Your task to perform on an android device: Go to settings Image 0: 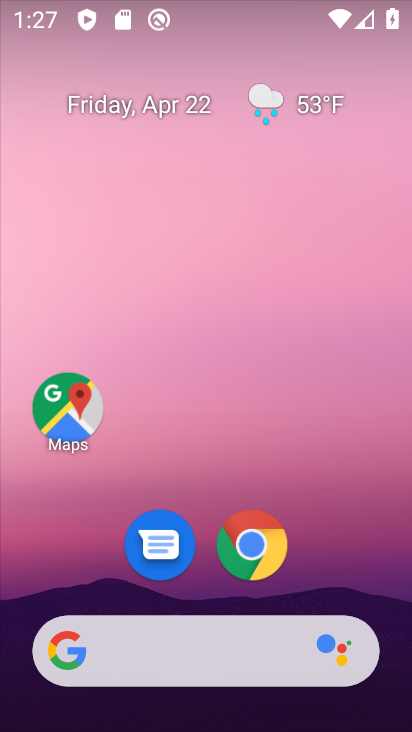
Step 0: drag from (188, 476) to (226, 75)
Your task to perform on an android device: Go to settings Image 1: 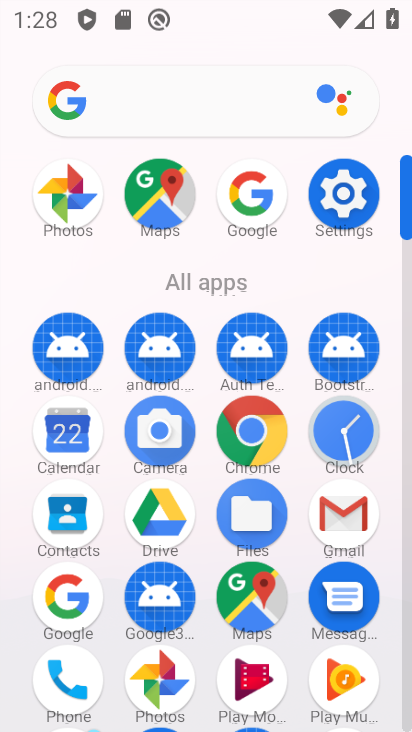
Step 1: click (346, 195)
Your task to perform on an android device: Go to settings Image 2: 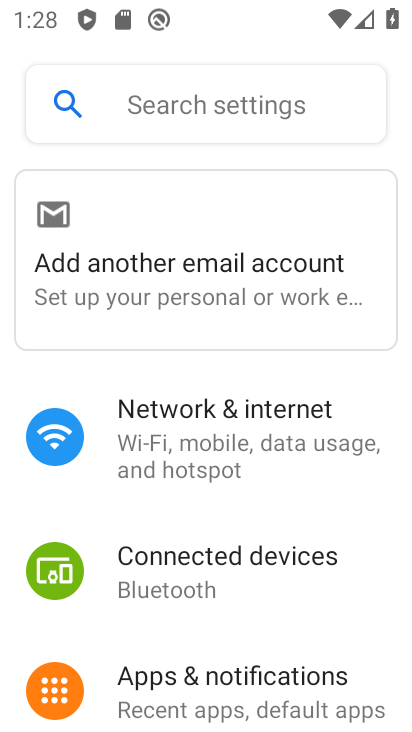
Step 2: task complete